Your task to perform on an android device: see tabs open on other devices in the chrome app Image 0: 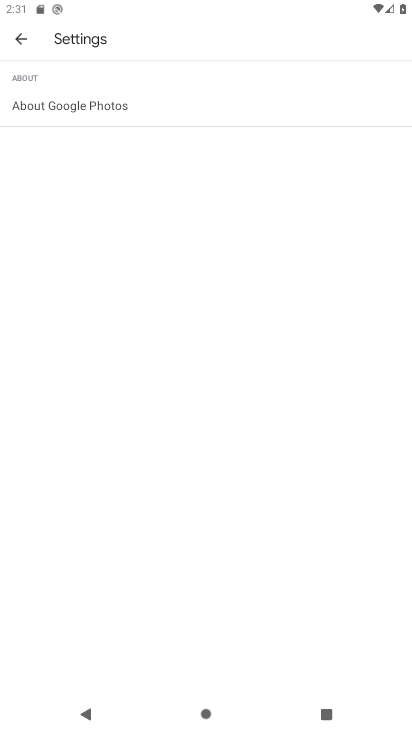
Step 0: press home button
Your task to perform on an android device: see tabs open on other devices in the chrome app Image 1: 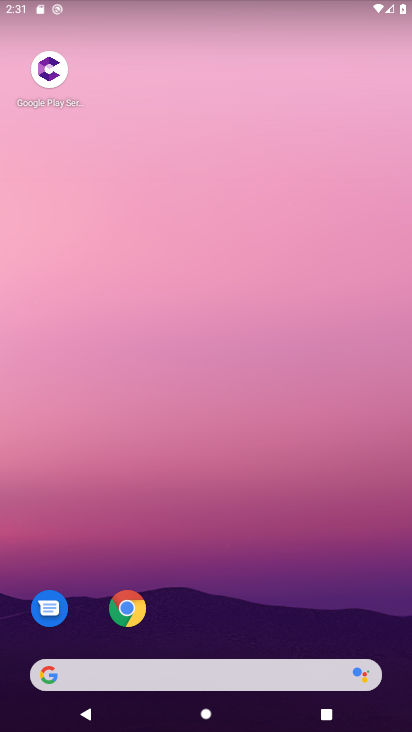
Step 1: click (136, 615)
Your task to perform on an android device: see tabs open on other devices in the chrome app Image 2: 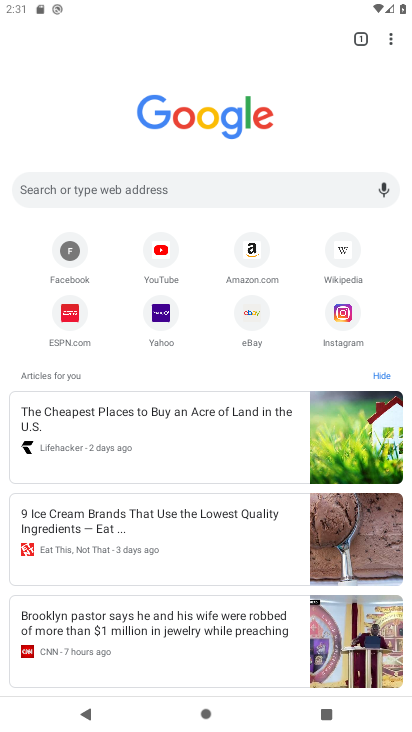
Step 2: click (394, 41)
Your task to perform on an android device: see tabs open on other devices in the chrome app Image 3: 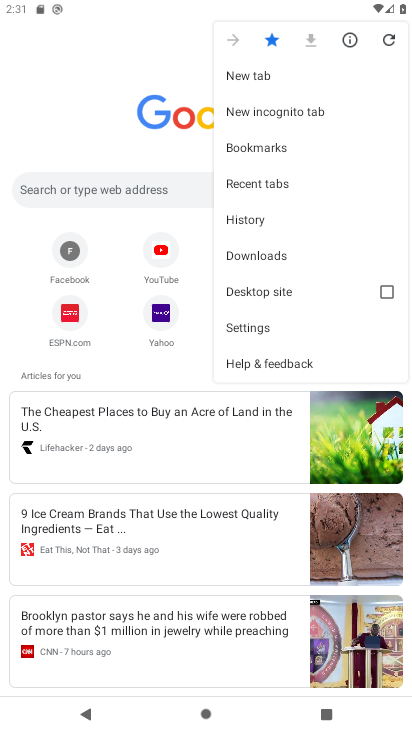
Step 3: click (236, 186)
Your task to perform on an android device: see tabs open on other devices in the chrome app Image 4: 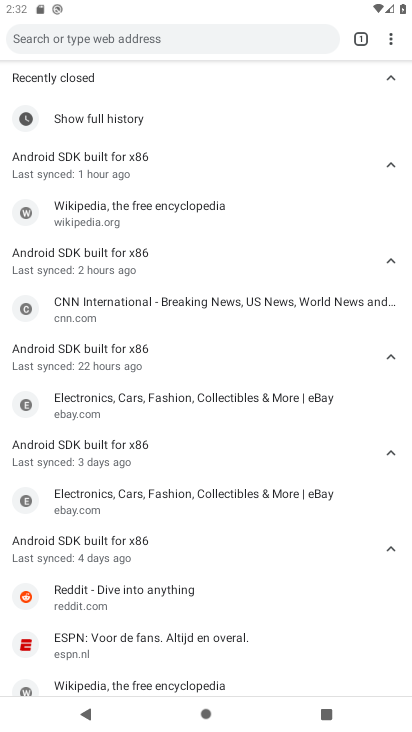
Step 4: task complete